Your task to perform on an android device: set default search engine in the chrome app Image 0: 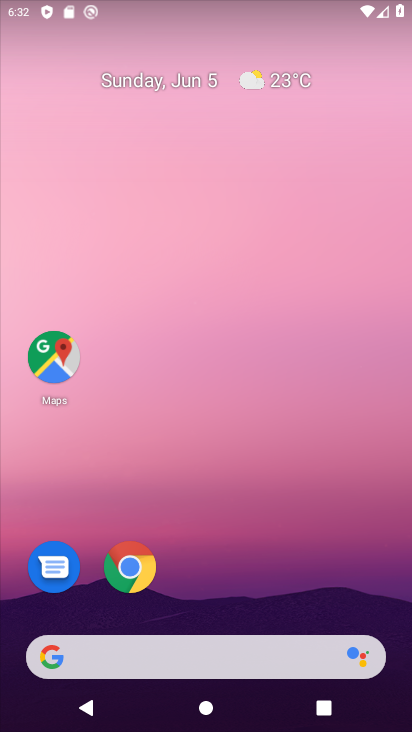
Step 0: click (399, 665)
Your task to perform on an android device: set default search engine in the chrome app Image 1: 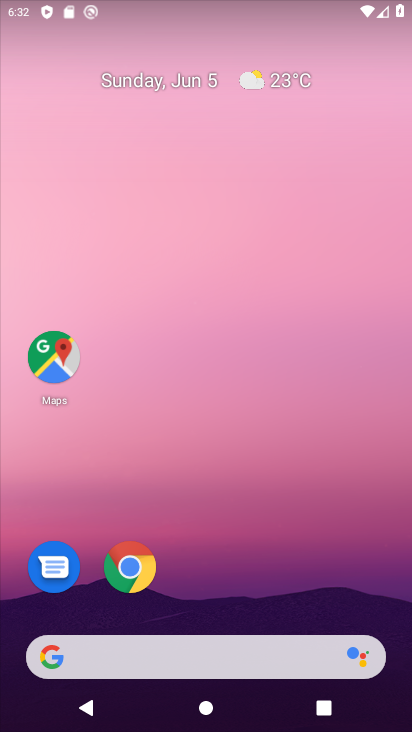
Step 1: click (309, 49)
Your task to perform on an android device: set default search engine in the chrome app Image 2: 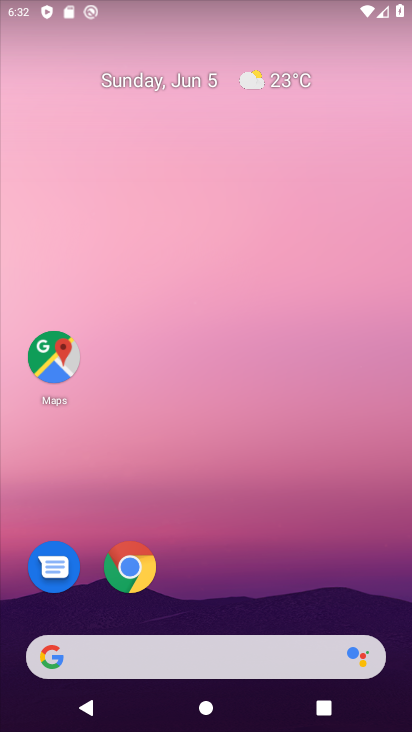
Step 2: drag from (363, 603) to (221, 1)
Your task to perform on an android device: set default search engine in the chrome app Image 3: 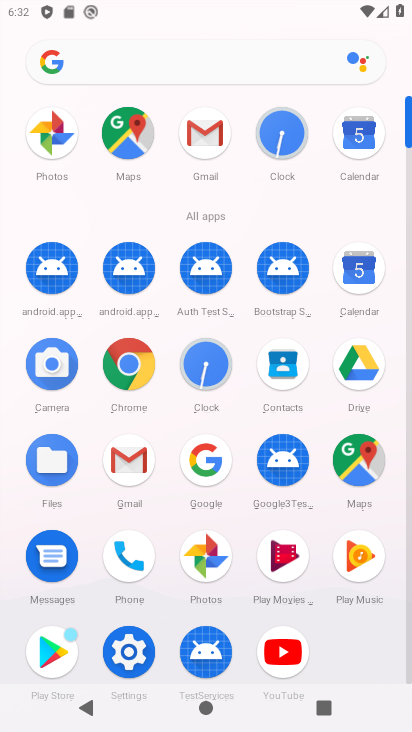
Step 3: click (125, 368)
Your task to perform on an android device: set default search engine in the chrome app Image 4: 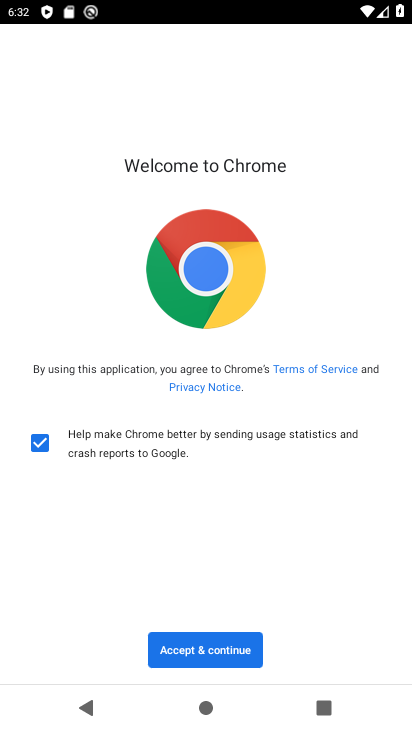
Step 4: click (214, 644)
Your task to perform on an android device: set default search engine in the chrome app Image 5: 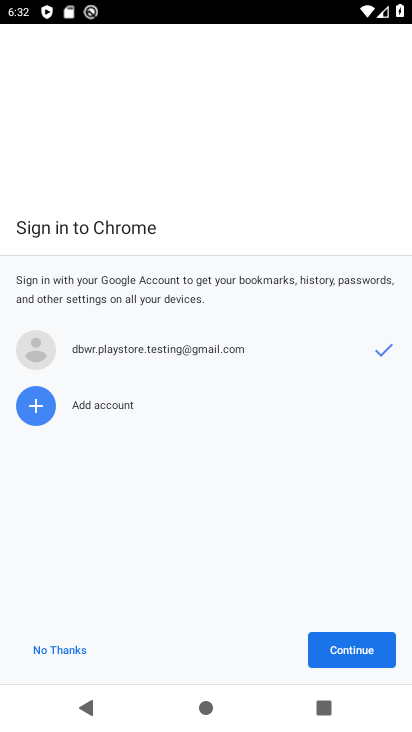
Step 5: click (344, 654)
Your task to perform on an android device: set default search engine in the chrome app Image 6: 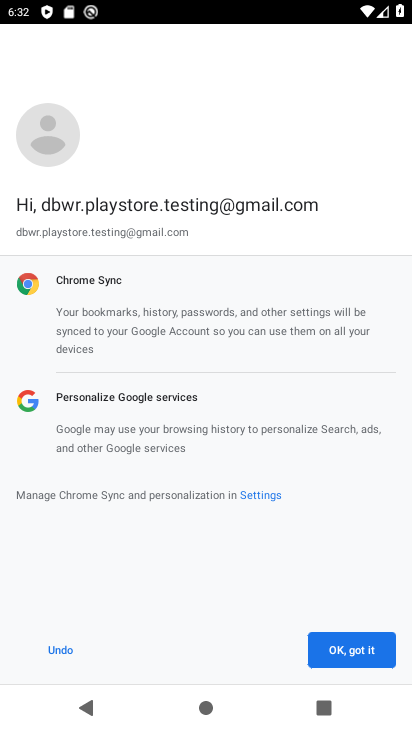
Step 6: click (344, 654)
Your task to perform on an android device: set default search engine in the chrome app Image 7: 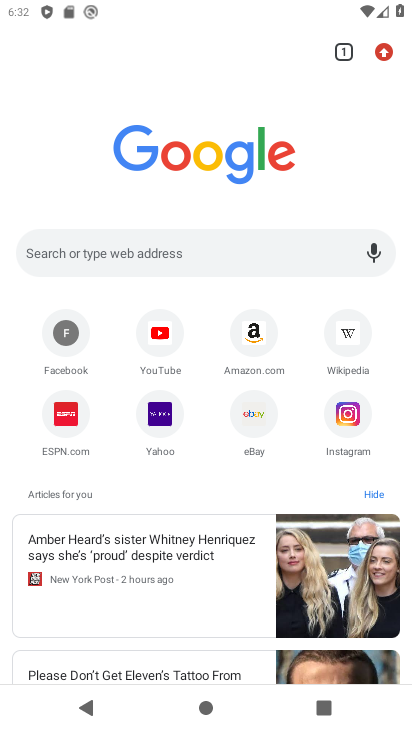
Step 7: click (379, 61)
Your task to perform on an android device: set default search engine in the chrome app Image 8: 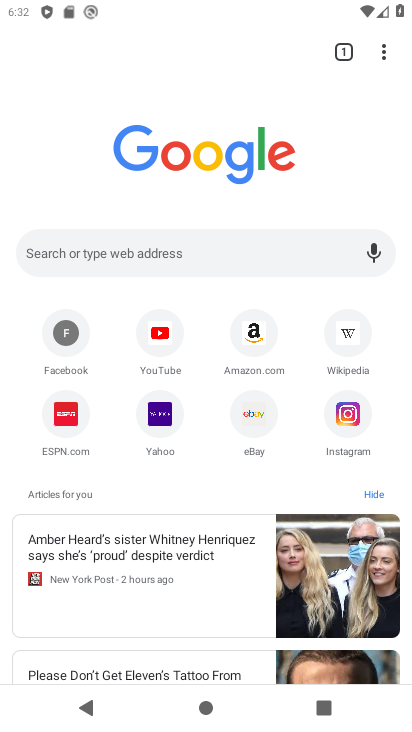
Step 8: click (378, 48)
Your task to perform on an android device: set default search engine in the chrome app Image 9: 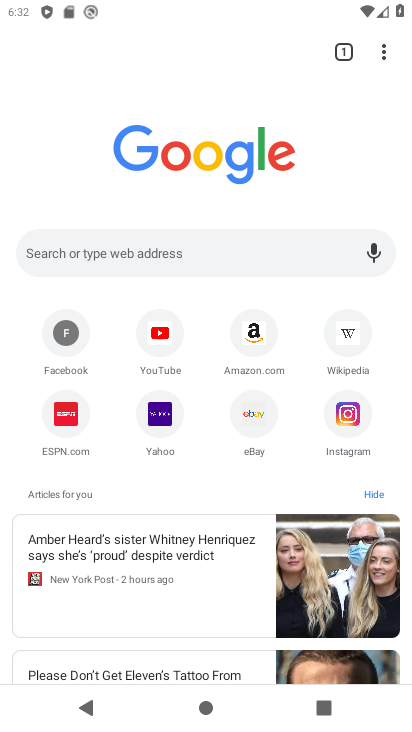
Step 9: click (383, 43)
Your task to perform on an android device: set default search engine in the chrome app Image 10: 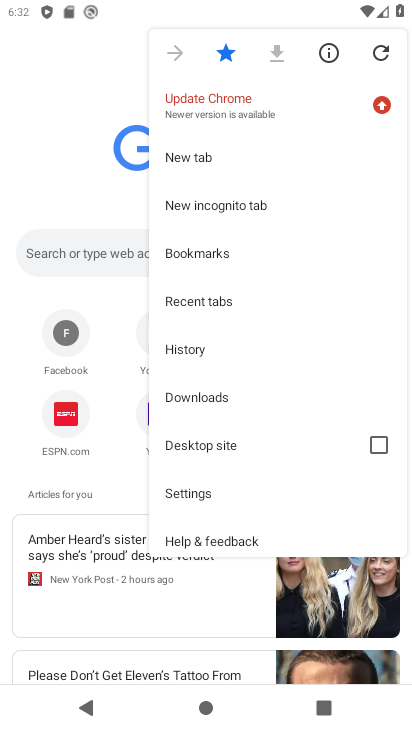
Step 10: click (202, 490)
Your task to perform on an android device: set default search engine in the chrome app Image 11: 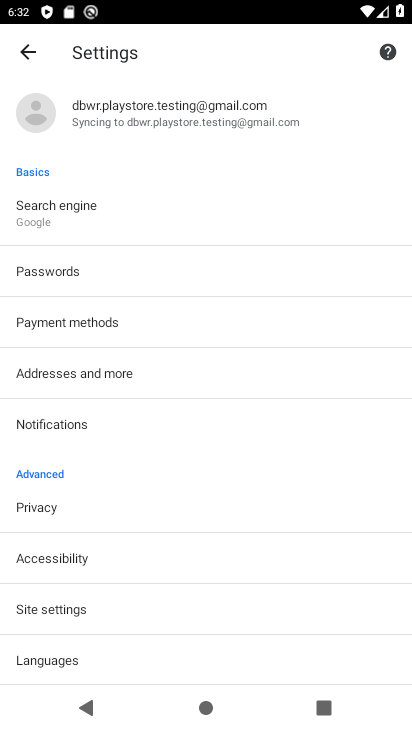
Step 11: click (145, 220)
Your task to perform on an android device: set default search engine in the chrome app Image 12: 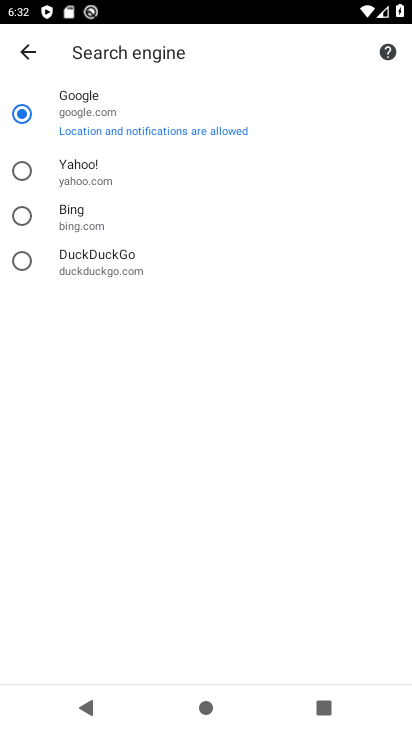
Step 12: click (72, 212)
Your task to perform on an android device: set default search engine in the chrome app Image 13: 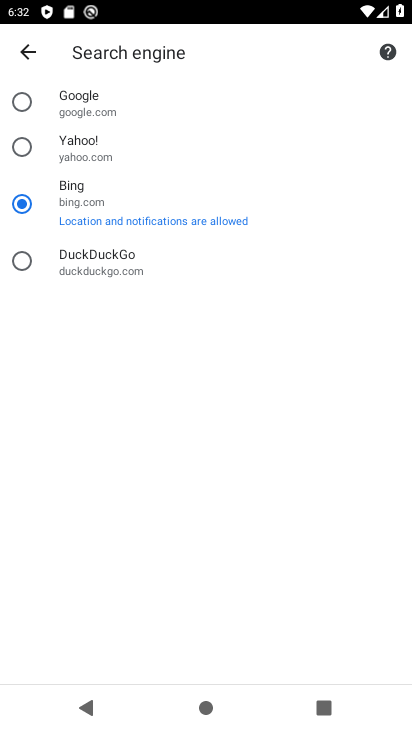
Step 13: task complete